Your task to perform on an android device: allow cookies in the chrome app Image 0: 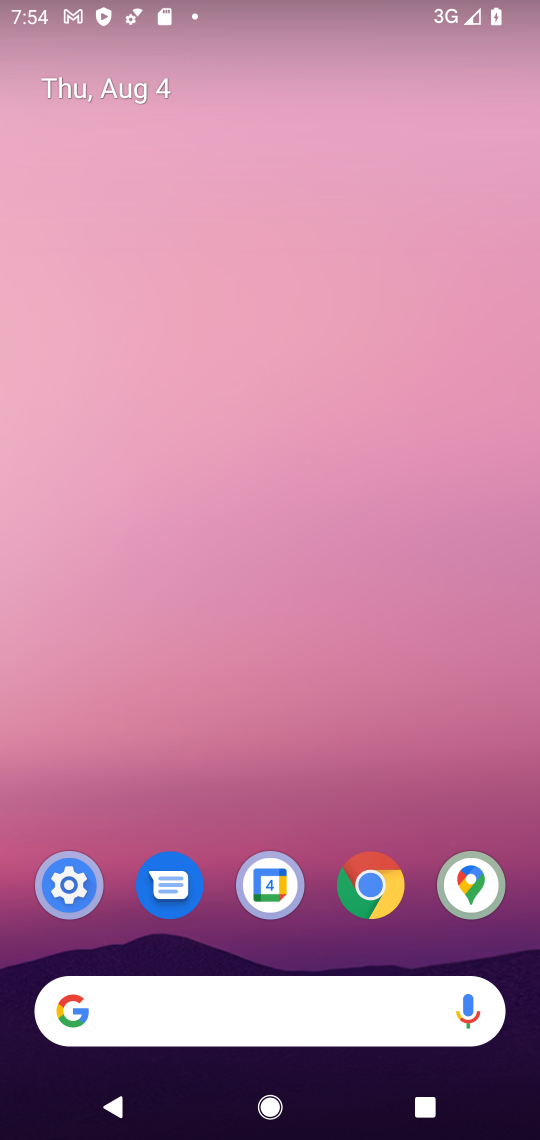
Step 0: press home button
Your task to perform on an android device: allow cookies in the chrome app Image 1: 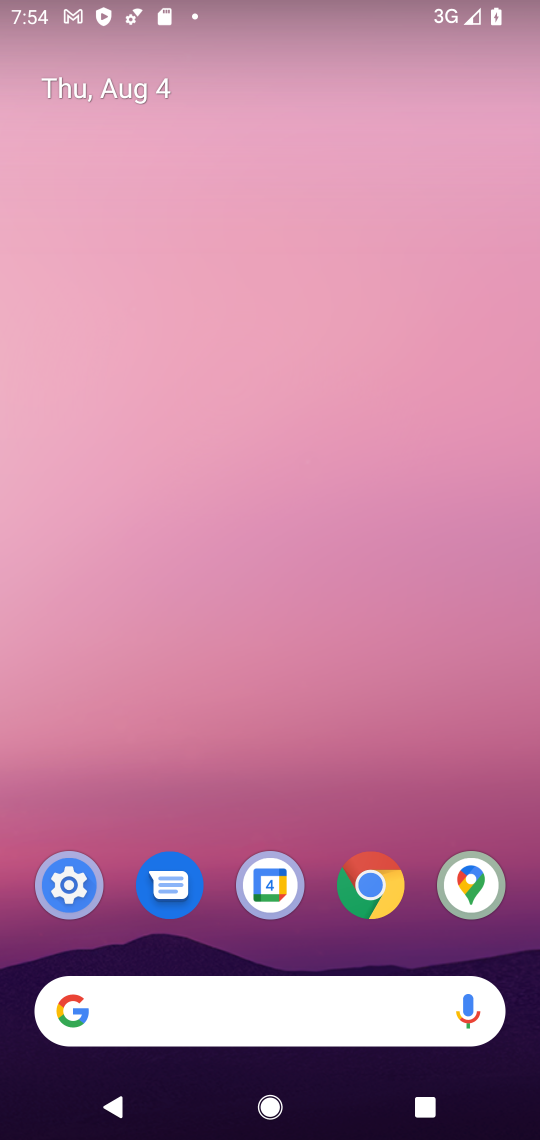
Step 1: press home button
Your task to perform on an android device: allow cookies in the chrome app Image 2: 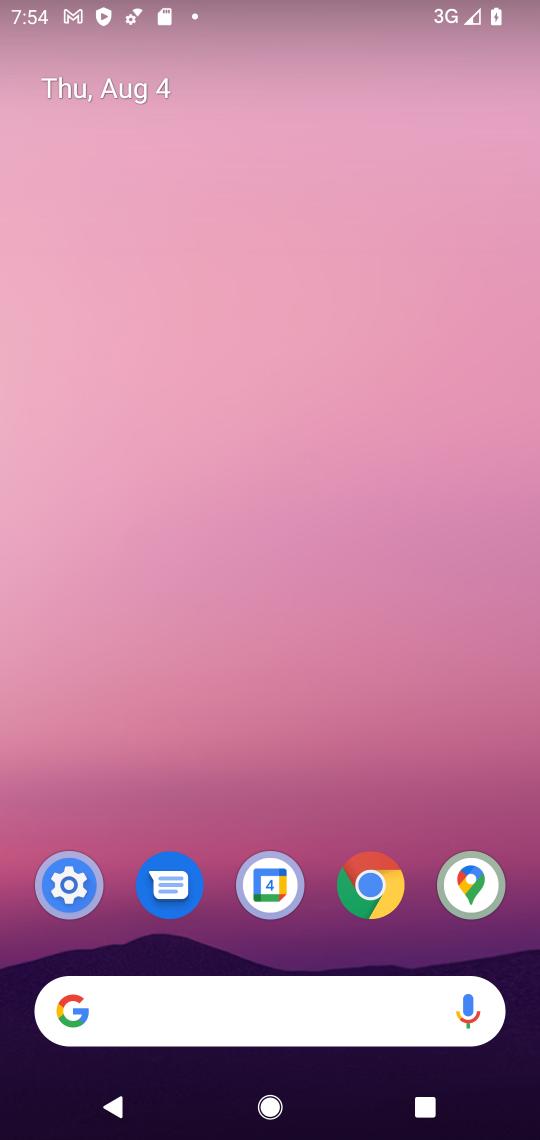
Step 2: press home button
Your task to perform on an android device: allow cookies in the chrome app Image 3: 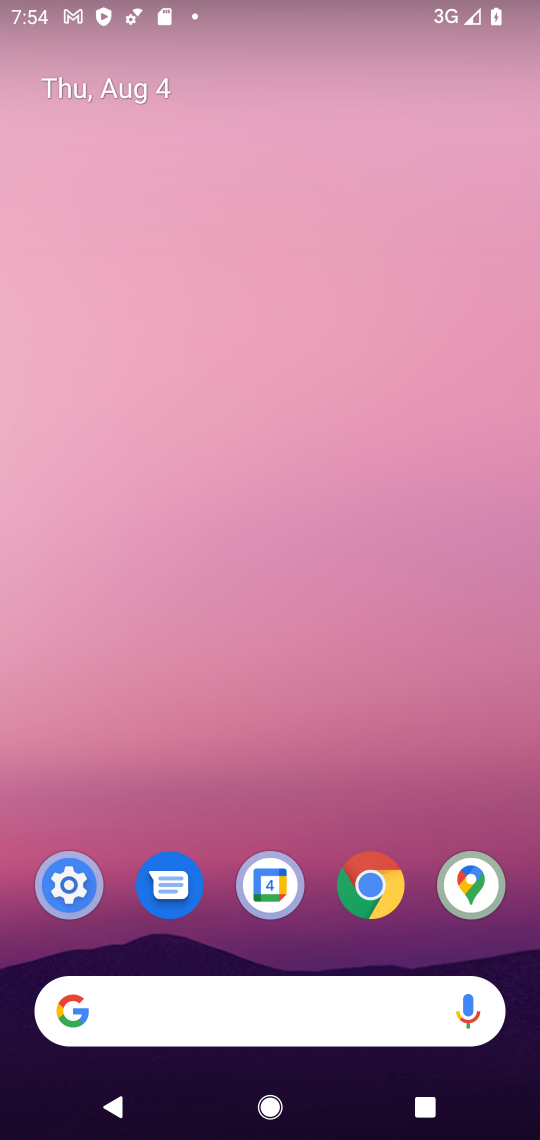
Step 3: click (361, 864)
Your task to perform on an android device: allow cookies in the chrome app Image 4: 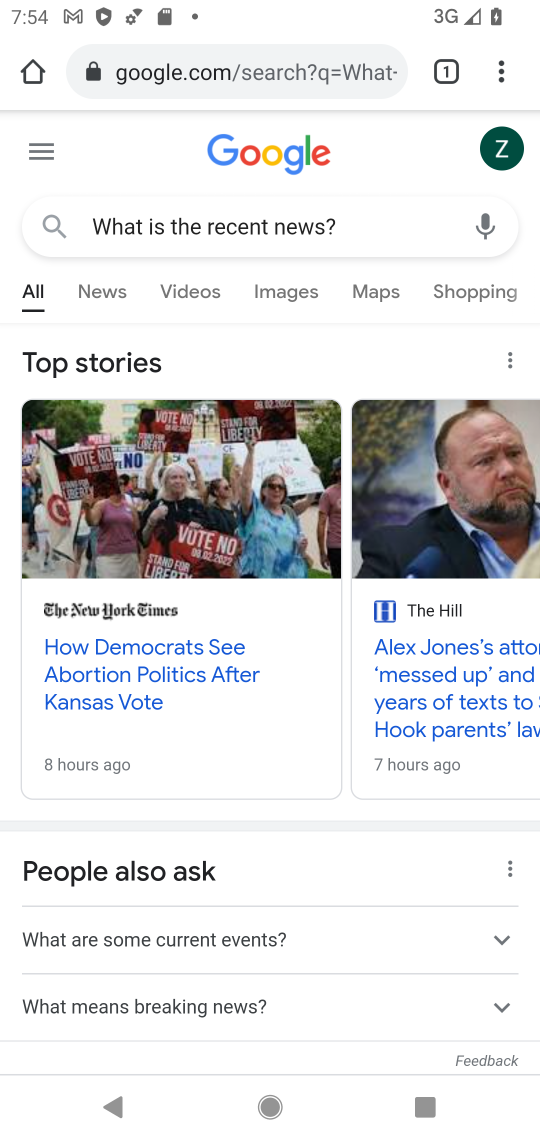
Step 4: drag from (512, 67) to (296, 900)
Your task to perform on an android device: allow cookies in the chrome app Image 5: 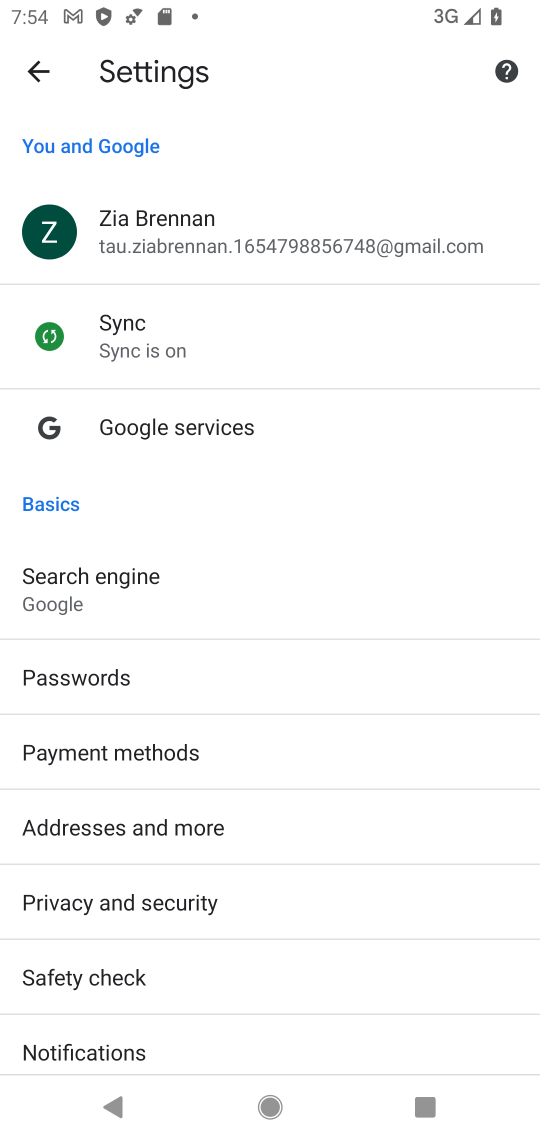
Step 5: drag from (306, 921) to (181, 80)
Your task to perform on an android device: allow cookies in the chrome app Image 6: 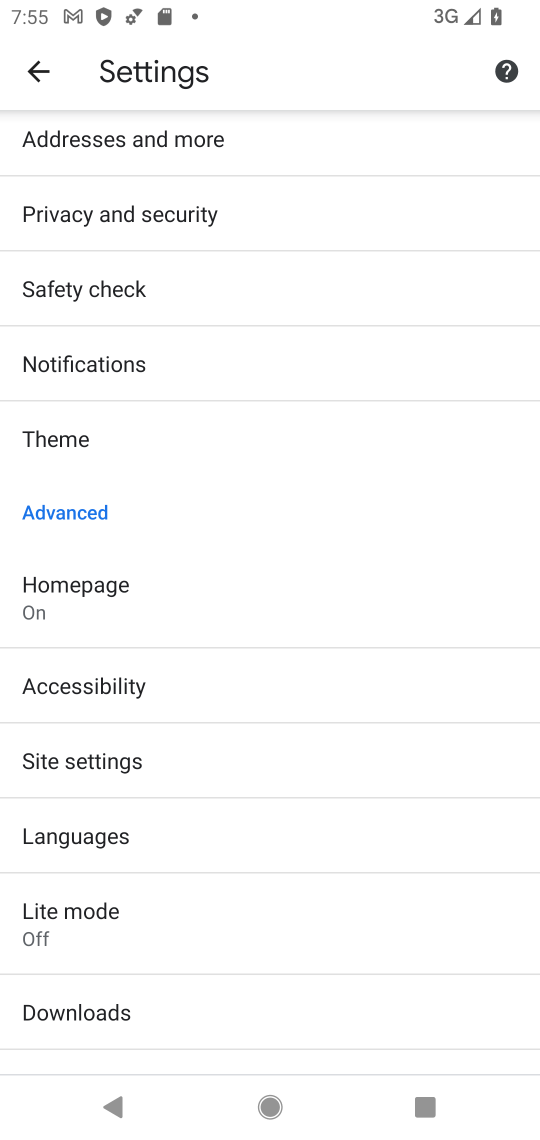
Step 6: click (101, 757)
Your task to perform on an android device: allow cookies in the chrome app Image 7: 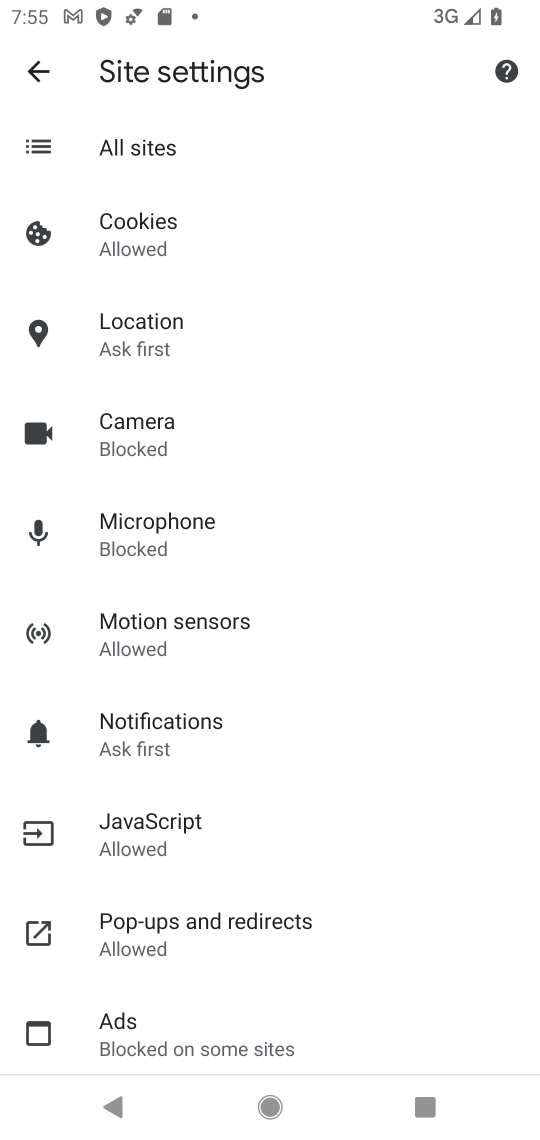
Step 7: click (156, 242)
Your task to perform on an android device: allow cookies in the chrome app Image 8: 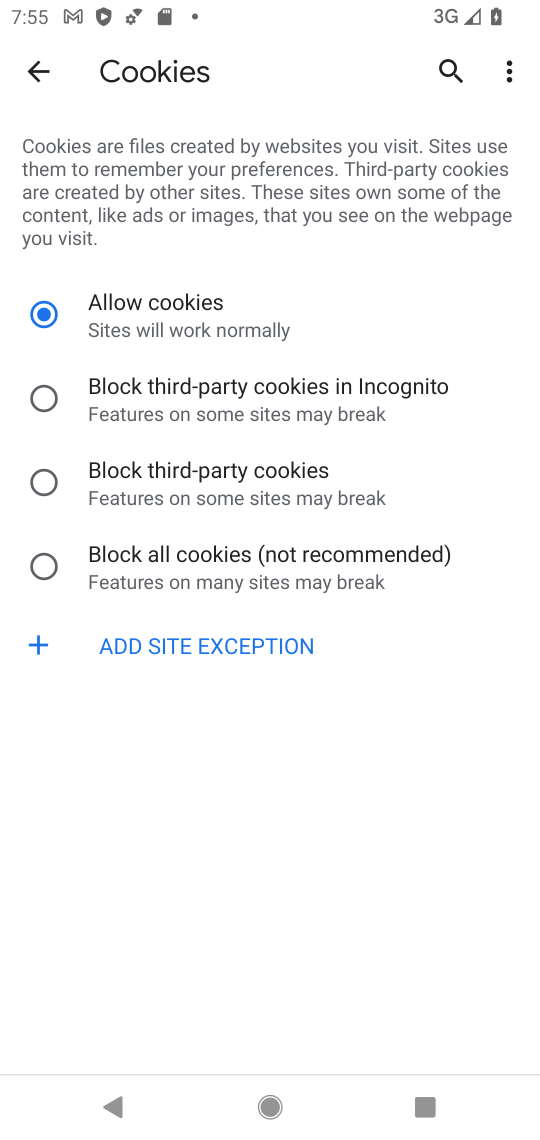
Step 8: click (156, 320)
Your task to perform on an android device: allow cookies in the chrome app Image 9: 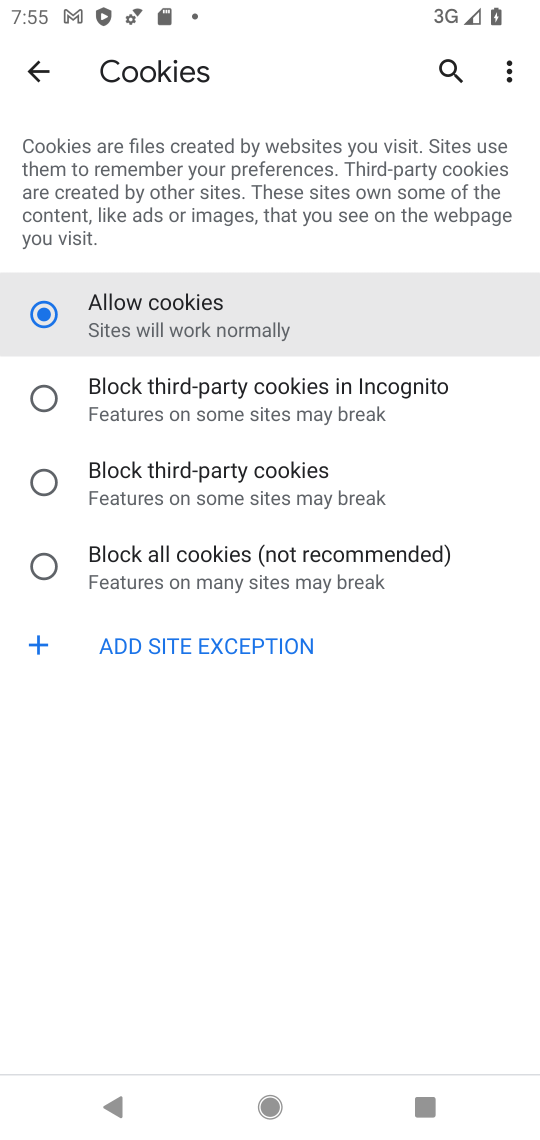
Step 9: task complete